Your task to perform on an android device: change notification settings in the gmail app Image 0: 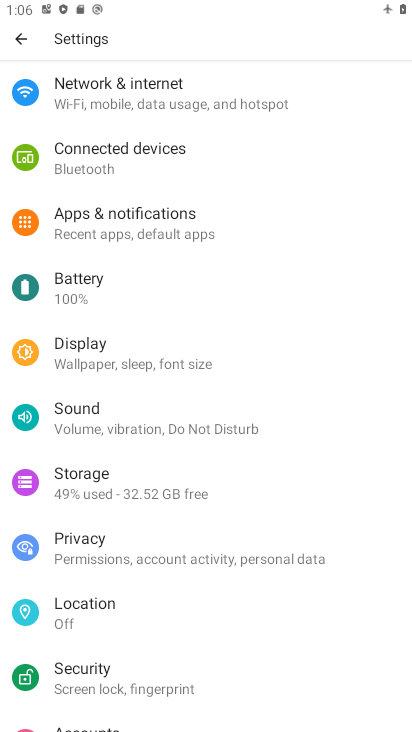
Step 0: type ""
Your task to perform on an android device: change notification settings in the gmail app Image 1: 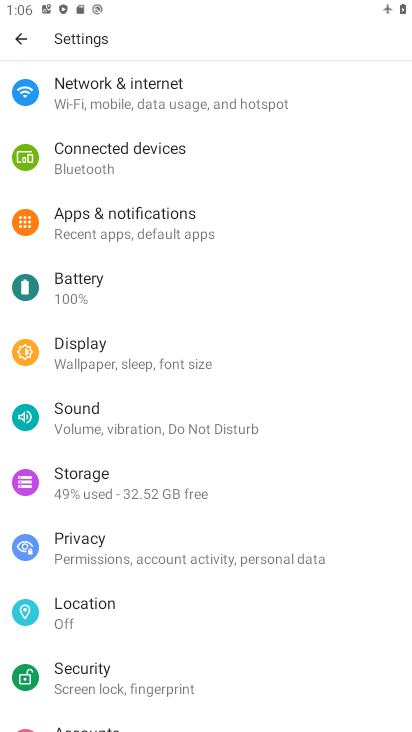
Step 1: press home button
Your task to perform on an android device: change notification settings in the gmail app Image 2: 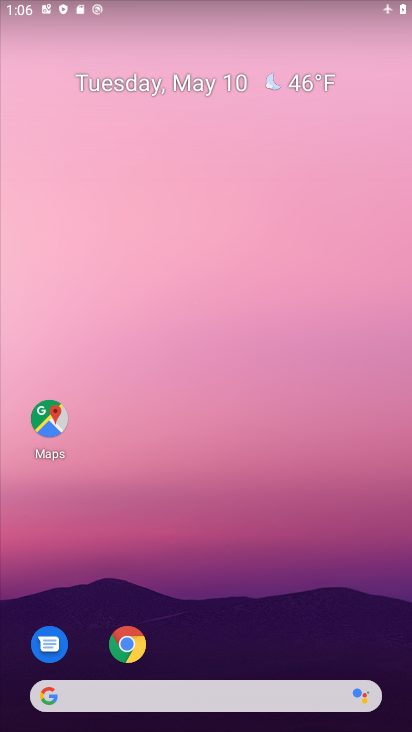
Step 2: drag from (282, 611) to (264, 223)
Your task to perform on an android device: change notification settings in the gmail app Image 3: 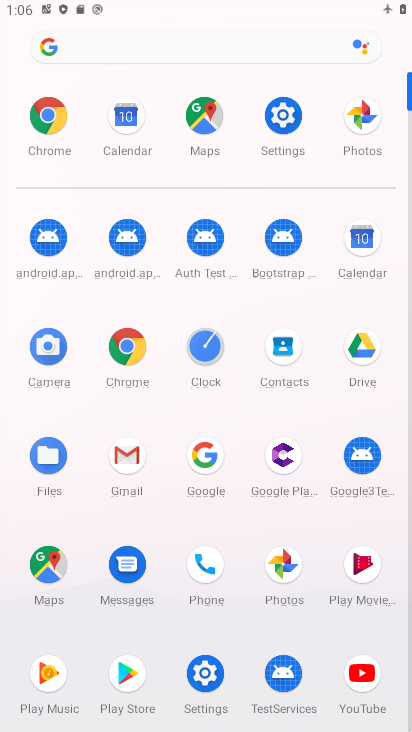
Step 3: click (126, 473)
Your task to perform on an android device: change notification settings in the gmail app Image 4: 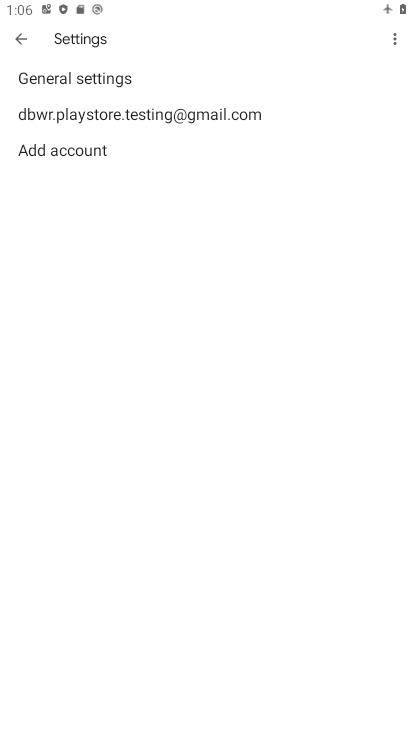
Step 4: click (129, 126)
Your task to perform on an android device: change notification settings in the gmail app Image 5: 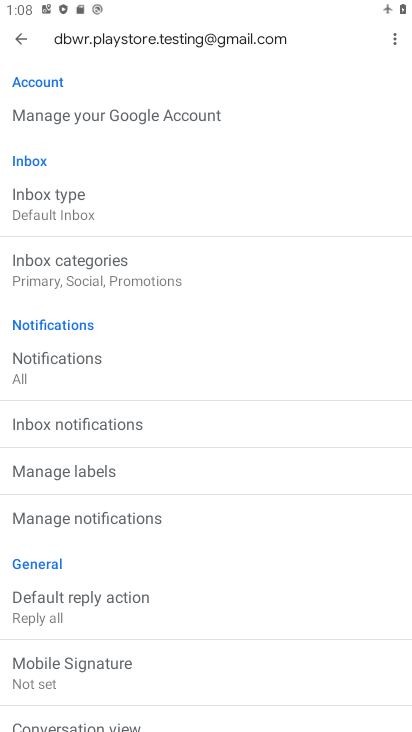
Step 5: click (213, 285)
Your task to perform on an android device: change notification settings in the gmail app Image 6: 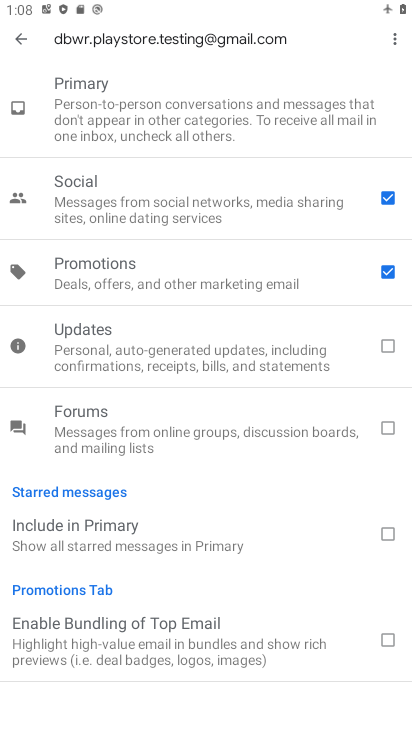
Step 6: click (159, 535)
Your task to perform on an android device: change notification settings in the gmail app Image 7: 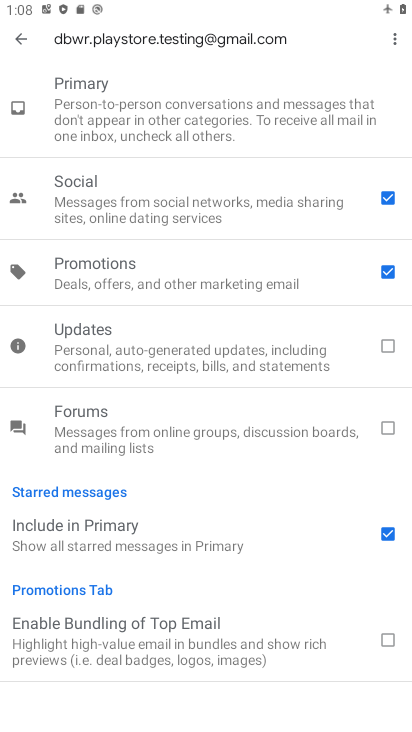
Step 7: press back button
Your task to perform on an android device: change notification settings in the gmail app Image 8: 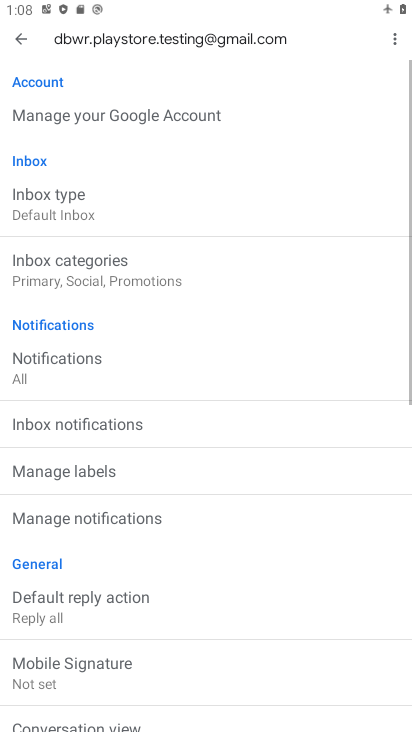
Step 8: click (191, 524)
Your task to perform on an android device: change notification settings in the gmail app Image 9: 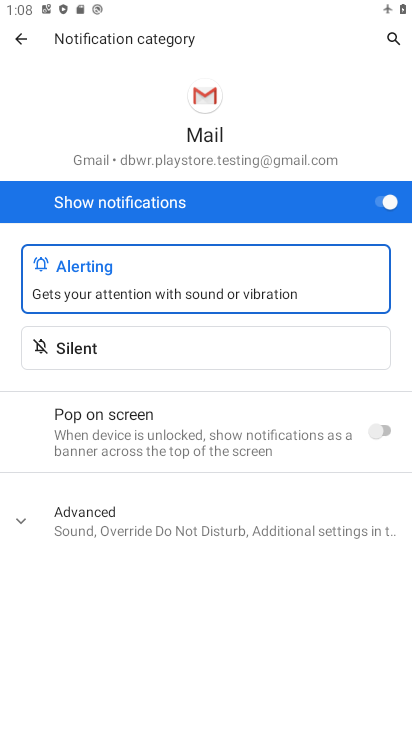
Step 9: click (223, 385)
Your task to perform on an android device: change notification settings in the gmail app Image 10: 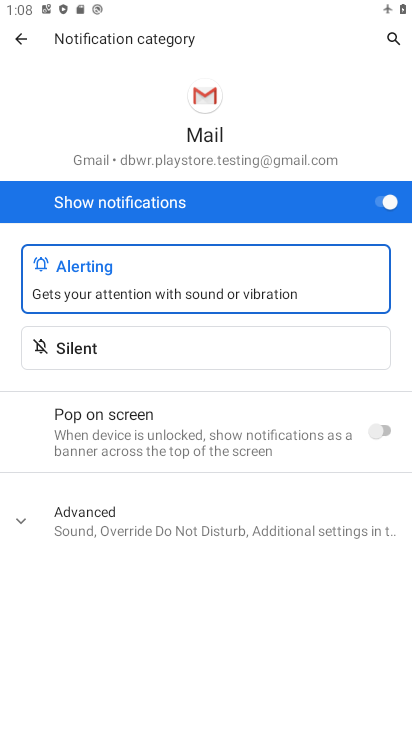
Step 10: click (167, 359)
Your task to perform on an android device: change notification settings in the gmail app Image 11: 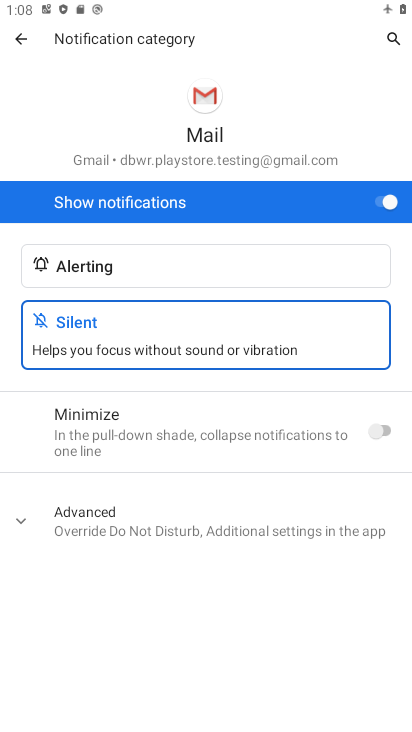
Step 11: task complete